Your task to perform on an android device: Turn on the flashlight Image 0: 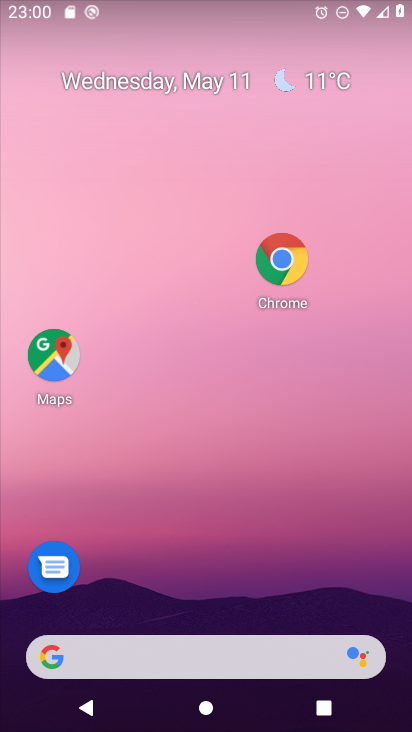
Step 0: press home button
Your task to perform on an android device: Turn on the flashlight Image 1: 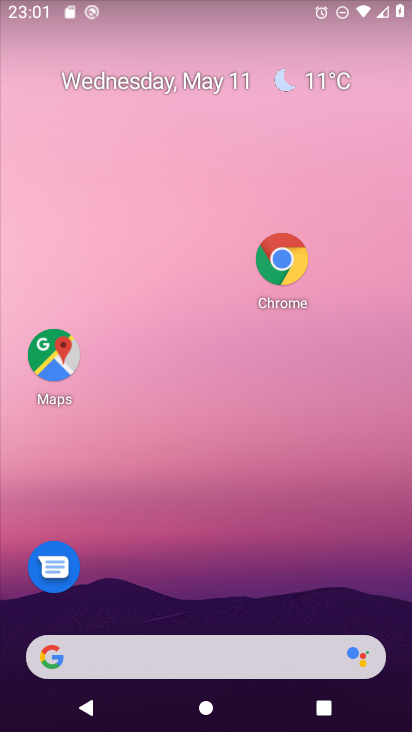
Step 1: task complete